Your task to perform on an android device: Open calendar and show me the fourth week of next month Image 0: 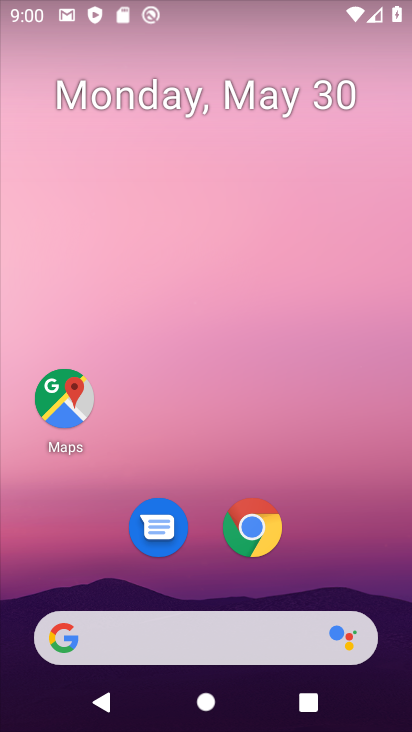
Step 0: drag from (329, 581) to (307, 12)
Your task to perform on an android device: Open calendar and show me the fourth week of next month Image 1: 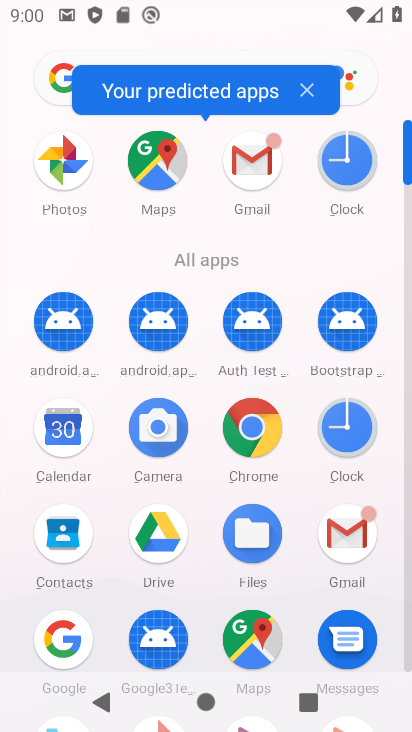
Step 1: click (66, 427)
Your task to perform on an android device: Open calendar and show me the fourth week of next month Image 2: 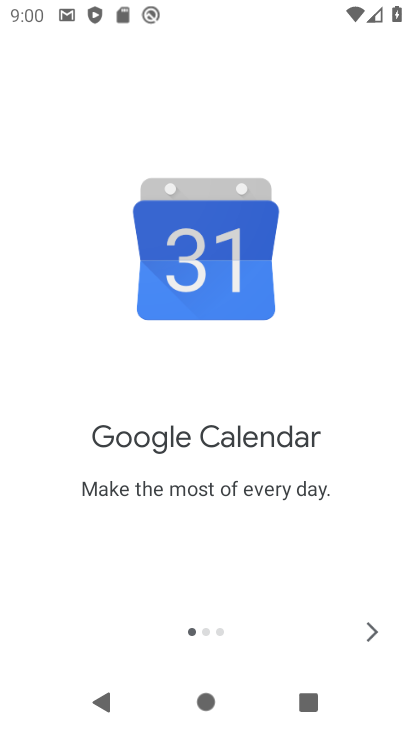
Step 2: click (360, 636)
Your task to perform on an android device: Open calendar and show me the fourth week of next month Image 3: 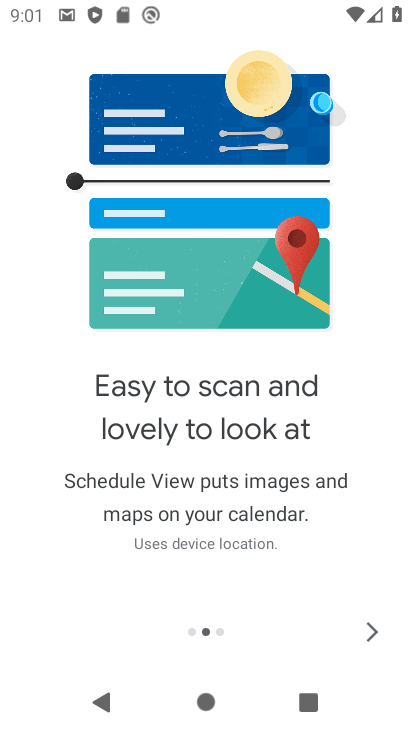
Step 3: click (361, 635)
Your task to perform on an android device: Open calendar and show me the fourth week of next month Image 4: 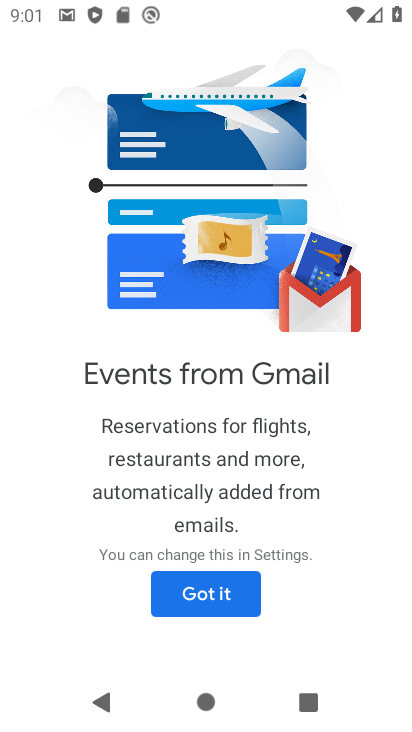
Step 4: click (213, 592)
Your task to perform on an android device: Open calendar and show me the fourth week of next month Image 5: 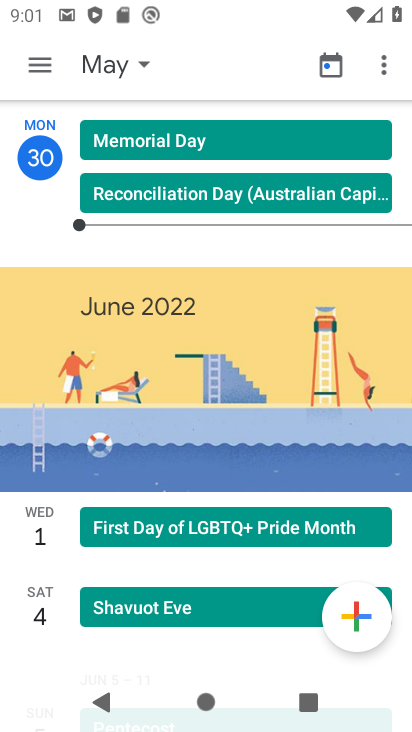
Step 5: click (110, 75)
Your task to perform on an android device: Open calendar and show me the fourth week of next month Image 6: 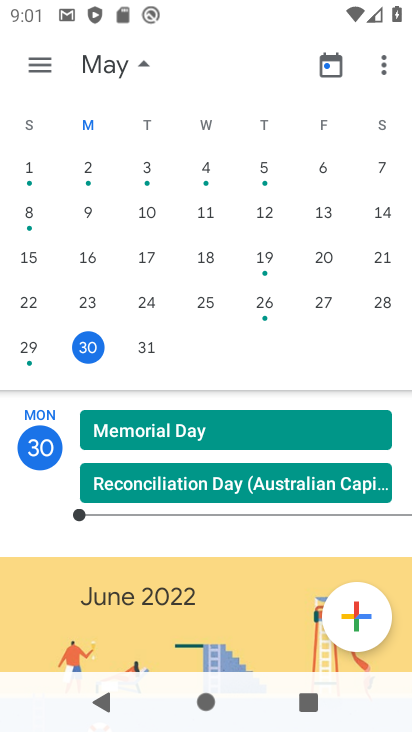
Step 6: drag from (395, 314) to (32, 292)
Your task to perform on an android device: Open calendar and show me the fourth week of next month Image 7: 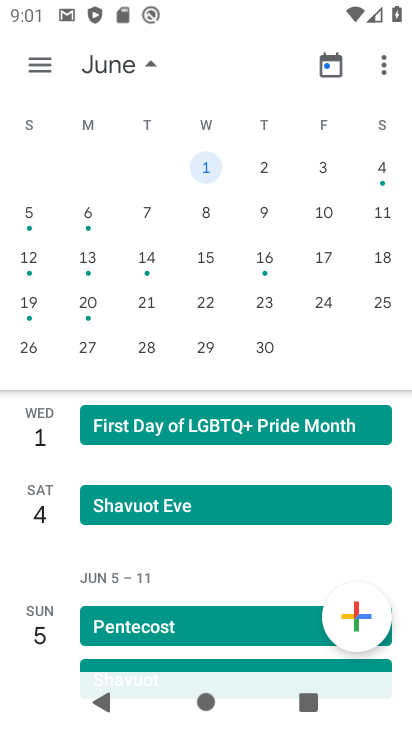
Step 7: click (39, 313)
Your task to perform on an android device: Open calendar and show me the fourth week of next month Image 8: 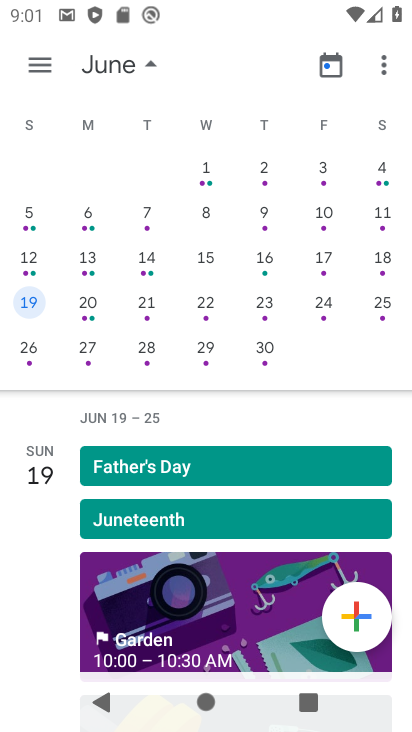
Step 8: task complete